Your task to perform on an android device: Go to wifi settings Image 0: 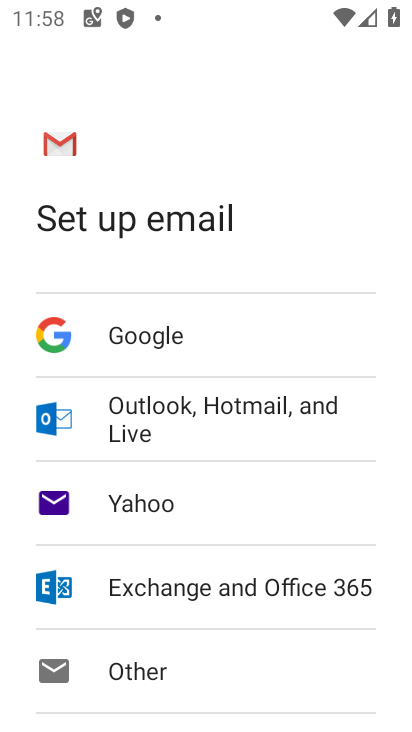
Step 0: press home button
Your task to perform on an android device: Go to wifi settings Image 1: 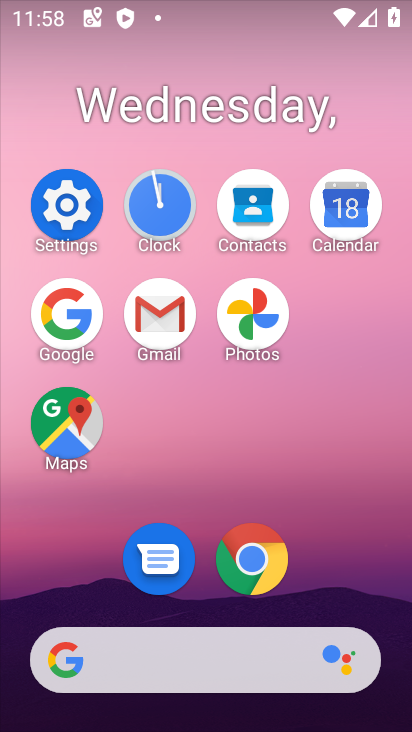
Step 1: click (80, 222)
Your task to perform on an android device: Go to wifi settings Image 2: 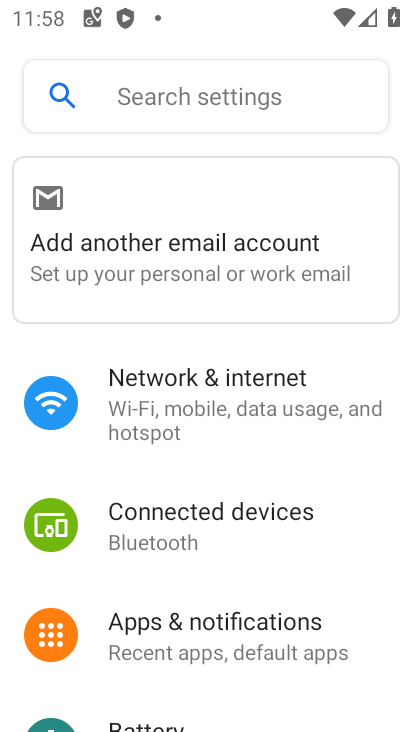
Step 2: click (176, 400)
Your task to perform on an android device: Go to wifi settings Image 3: 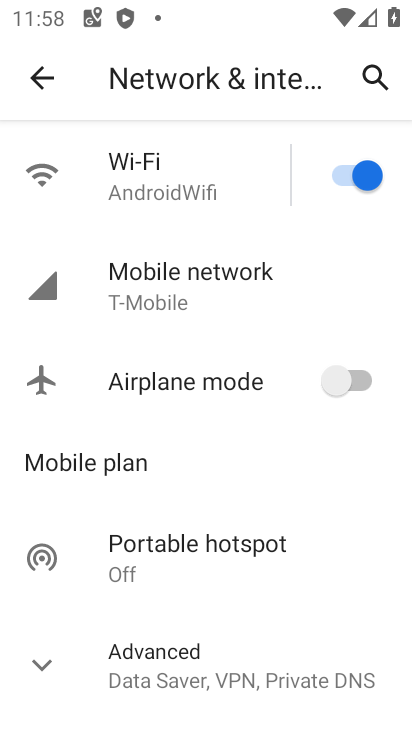
Step 3: click (209, 199)
Your task to perform on an android device: Go to wifi settings Image 4: 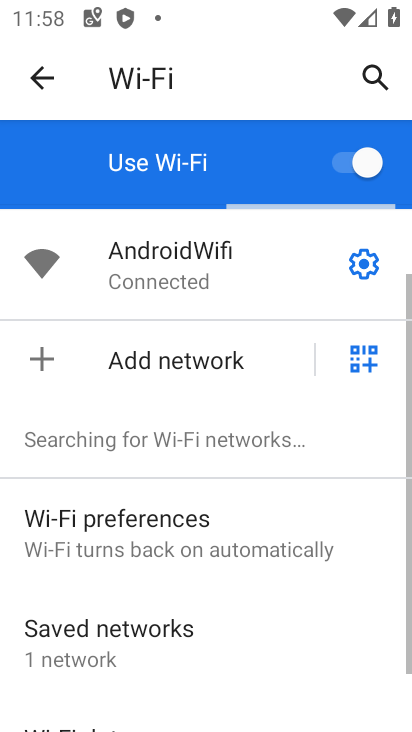
Step 4: click (368, 260)
Your task to perform on an android device: Go to wifi settings Image 5: 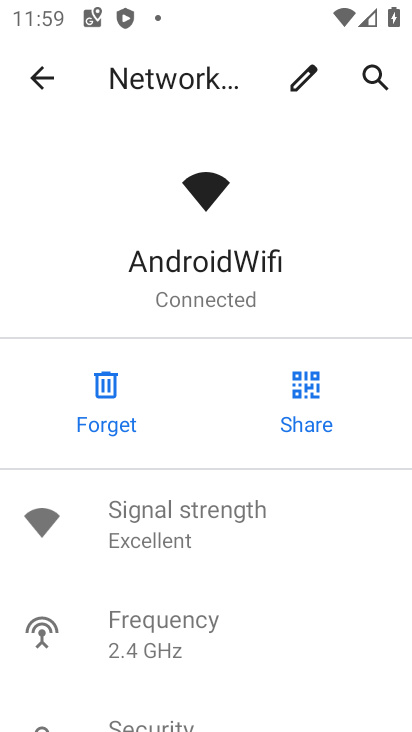
Step 5: task complete